Your task to perform on an android device: visit the assistant section in the google photos Image 0: 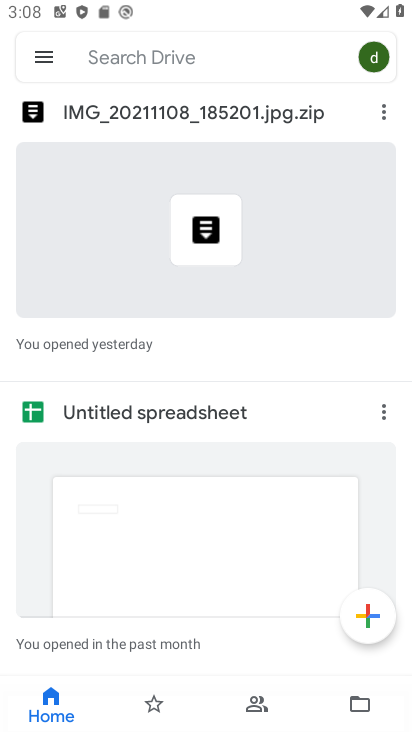
Step 0: press home button
Your task to perform on an android device: visit the assistant section in the google photos Image 1: 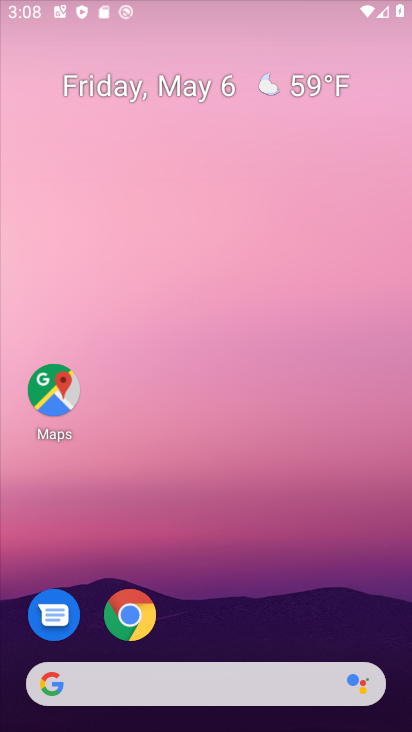
Step 1: drag from (250, 604) to (284, 232)
Your task to perform on an android device: visit the assistant section in the google photos Image 2: 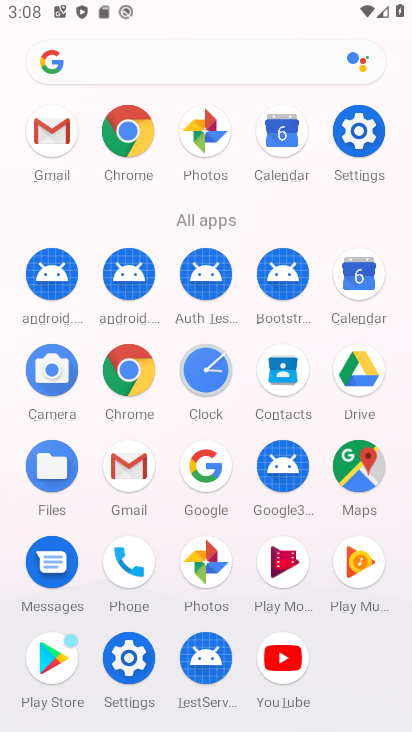
Step 2: click (203, 562)
Your task to perform on an android device: visit the assistant section in the google photos Image 3: 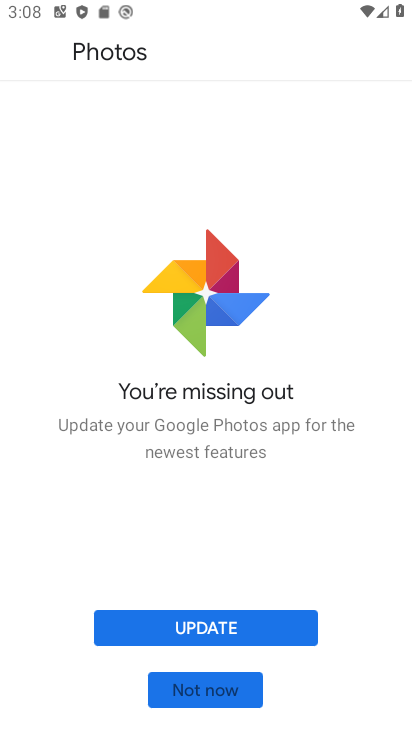
Step 3: click (227, 624)
Your task to perform on an android device: visit the assistant section in the google photos Image 4: 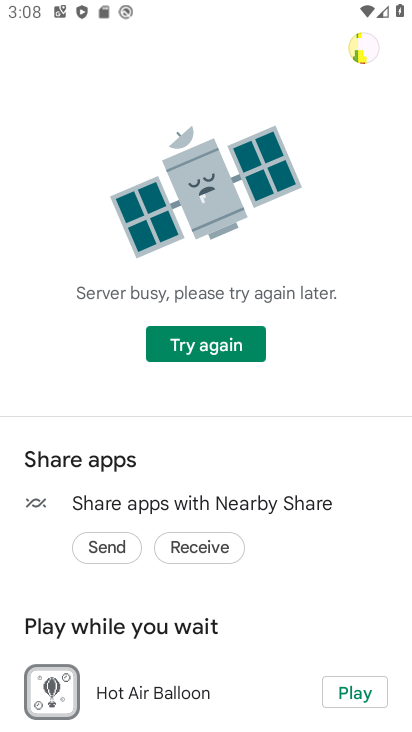
Step 4: press back button
Your task to perform on an android device: visit the assistant section in the google photos Image 5: 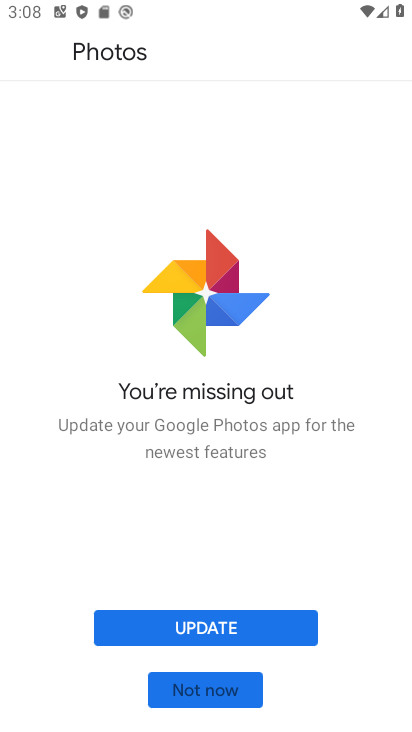
Step 5: click (198, 695)
Your task to perform on an android device: visit the assistant section in the google photos Image 6: 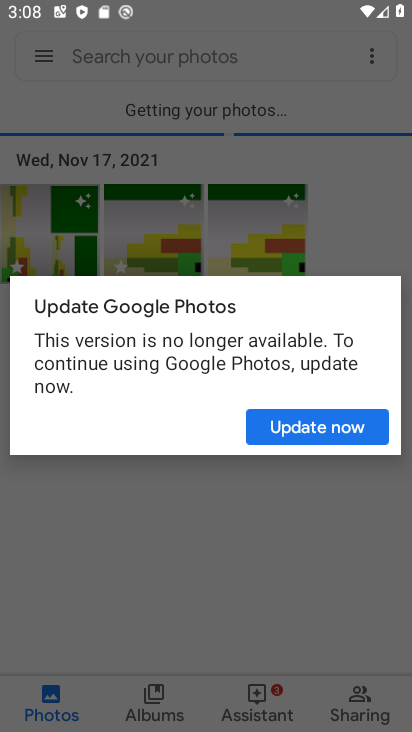
Step 6: click (315, 414)
Your task to perform on an android device: visit the assistant section in the google photos Image 7: 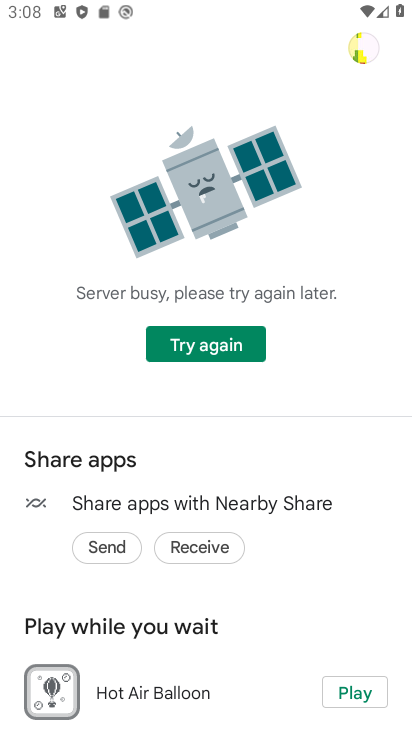
Step 7: press back button
Your task to perform on an android device: visit the assistant section in the google photos Image 8: 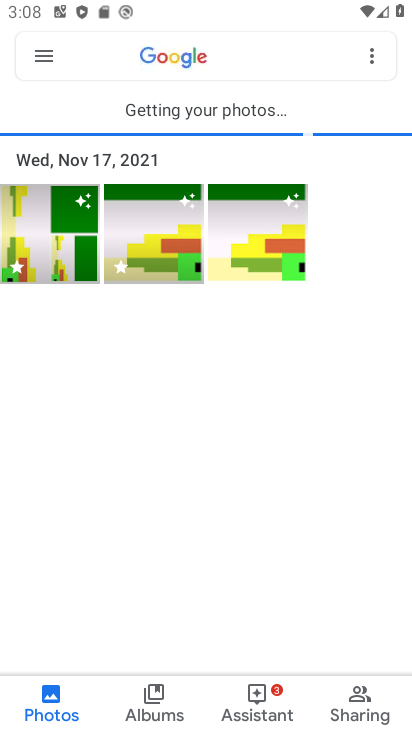
Step 8: click (264, 691)
Your task to perform on an android device: visit the assistant section in the google photos Image 9: 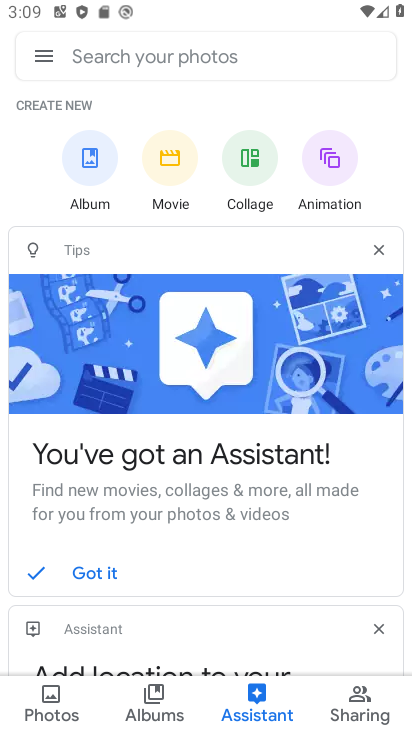
Step 9: task complete